Your task to perform on an android device: open a bookmark in the chrome app Image 0: 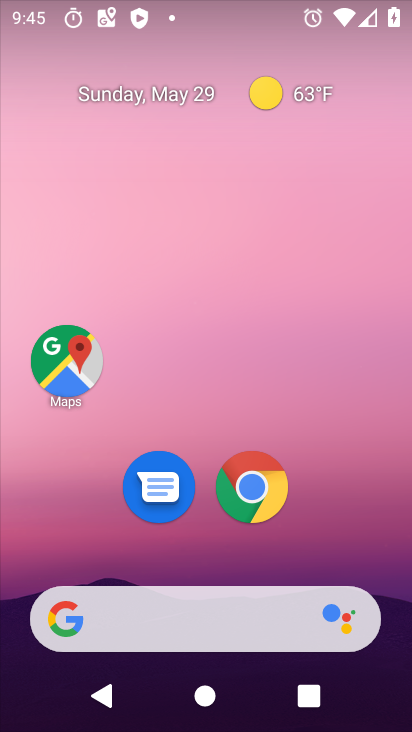
Step 0: drag from (240, 562) to (356, 10)
Your task to perform on an android device: open a bookmark in the chrome app Image 1: 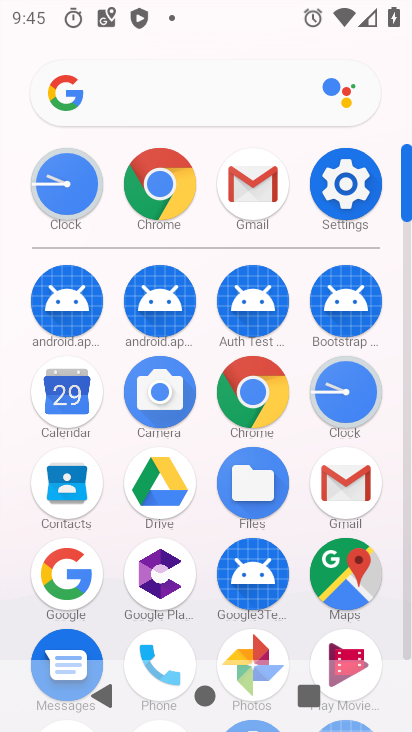
Step 1: click (255, 400)
Your task to perform on an android device: open a bookmark in the chrome app Image 2: 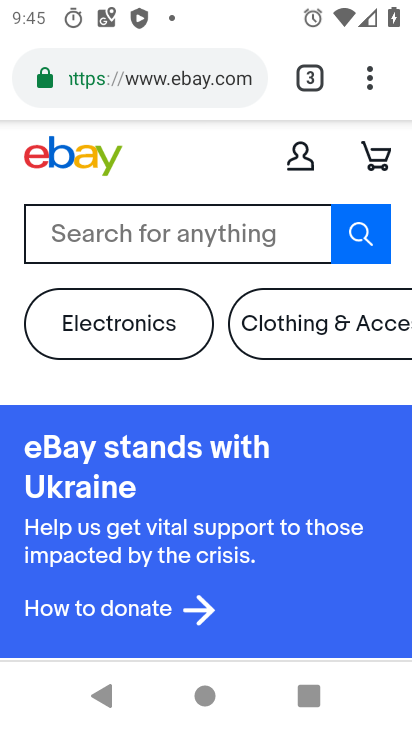
Step 2: click (382, 79)
Your task to perform on an android device: open a bookmark in the chrome app Image 3: 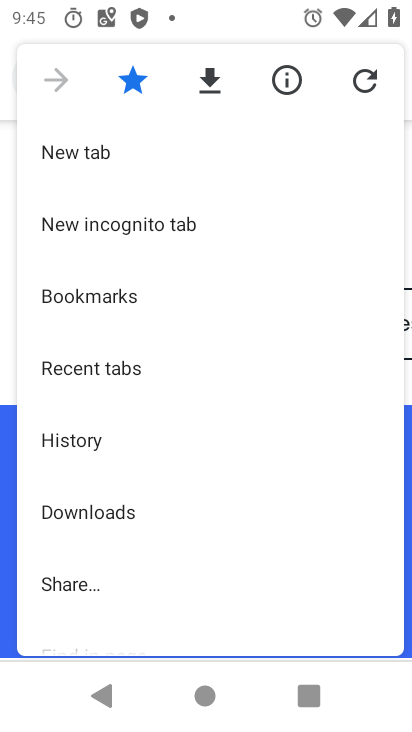
Step 3: click (81, 308)
Your task to perform on an android device: open a bookmark in the chrome app Image 4: 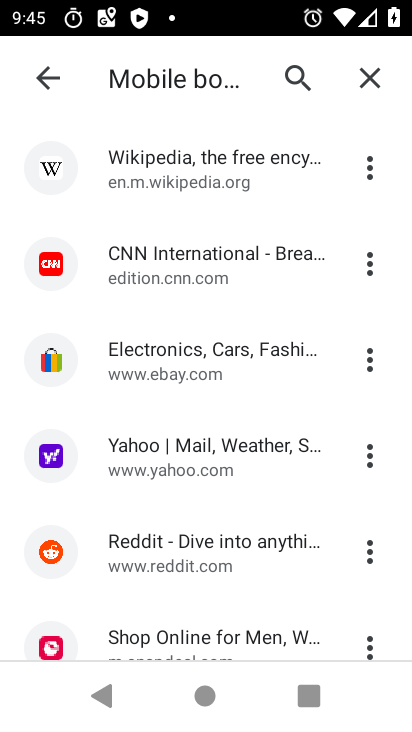
Step 4: drag from (132, 429) to (129, 252)
Your task to perform on an android device: open a bookmark in the chrome app Image 5: 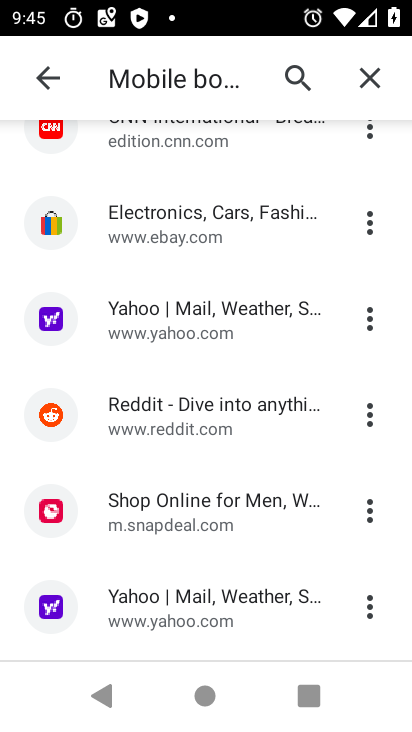
Step 5: click (123, 508)
Your task to perform on an android device: open a bookmark in the chrome app Image 6: 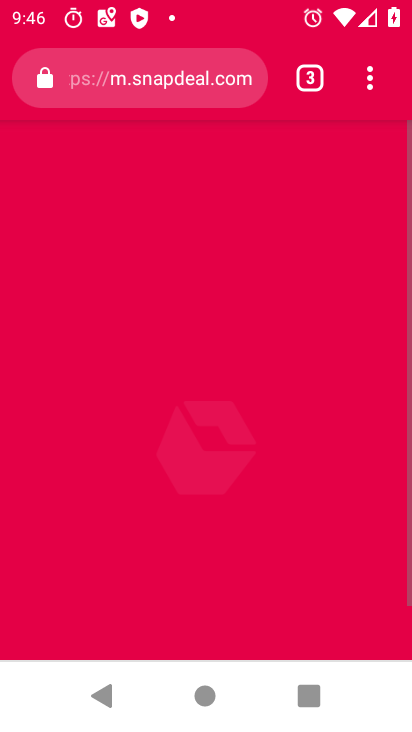
Step 6: task complete